Your task to perform on an android device: Open Yahoo.com Image 0: 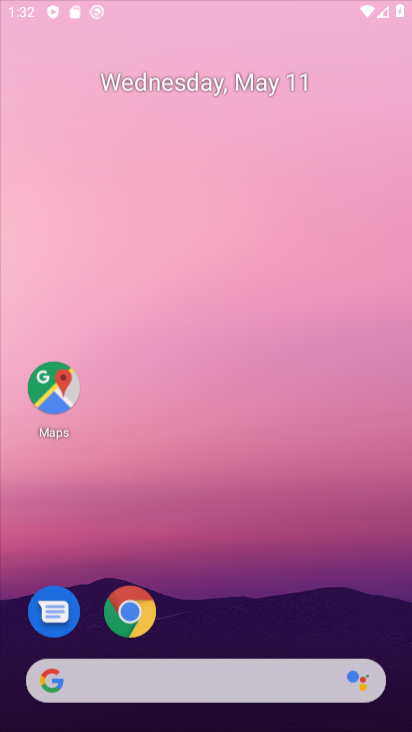
Step 0: click (395, 506)
Your task to perform on an android device: Open Yahoo.com Image 1: 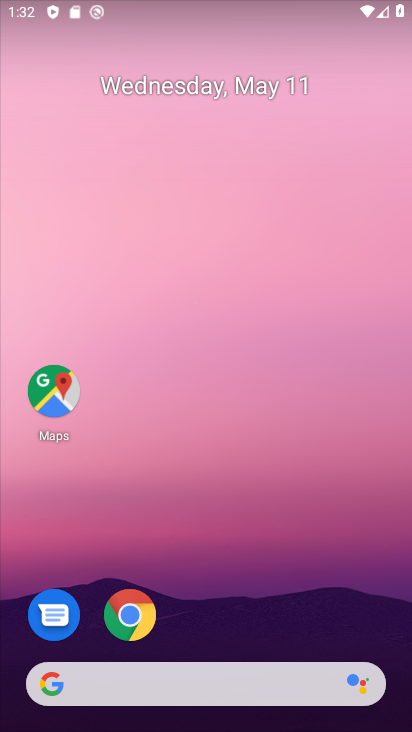
Step 1: drag from (250, 669) to (203, 235)
Your task to perform on an android device: Open Yahoo.com Image 2: 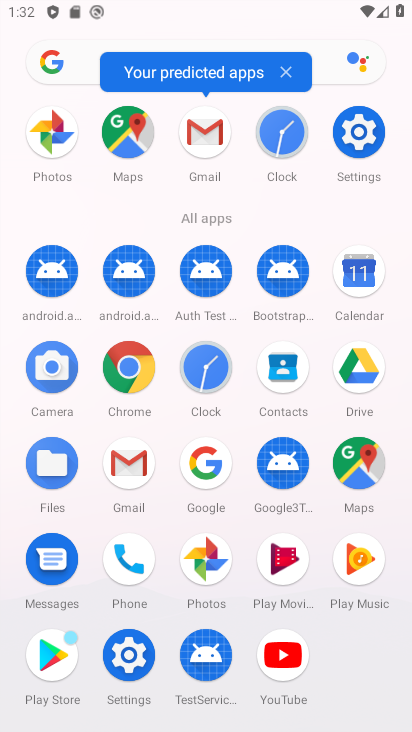
Step 2: click (120, 373)
Your task to perform on an android device: Open Yahoo.com Image 3: 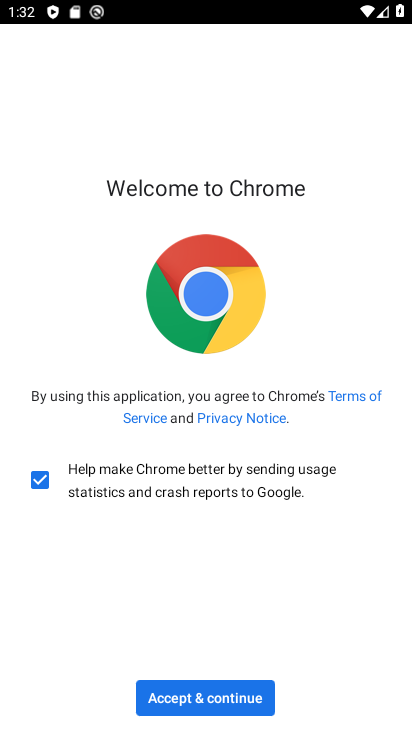
Step 3: click (221, 694)
Your task to perform on an android device: Open Yahoo.com Image 4: 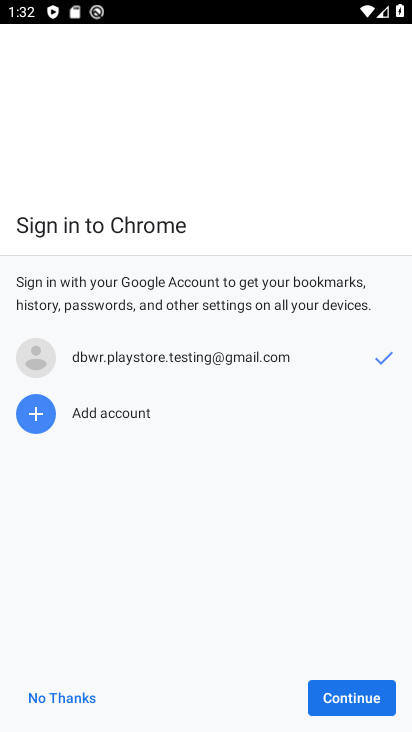
Step 4: click (320, 693)
Your task to perform on an android device: Open Yahoo.com Image 5: 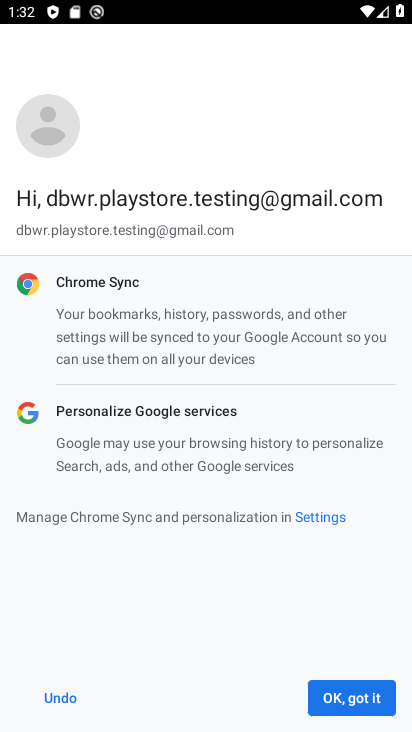
Step 5: click (320, 693)
Your task to perform on an android device: Open Yahoo.com Image 6: 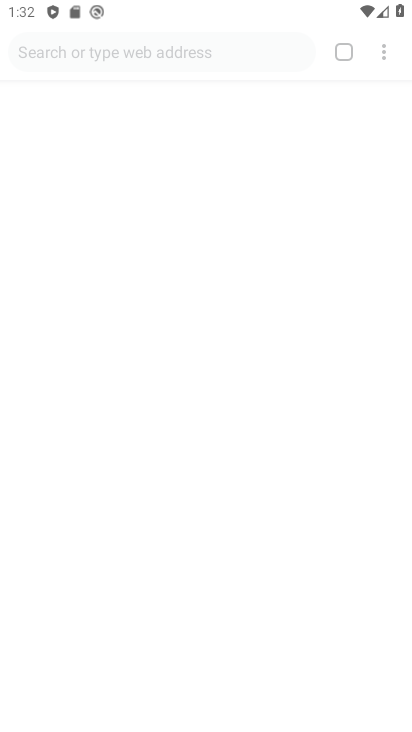
Step 6: click (320, 693)
Your task to perform on an android device: Open Yahoo.com Image 7: 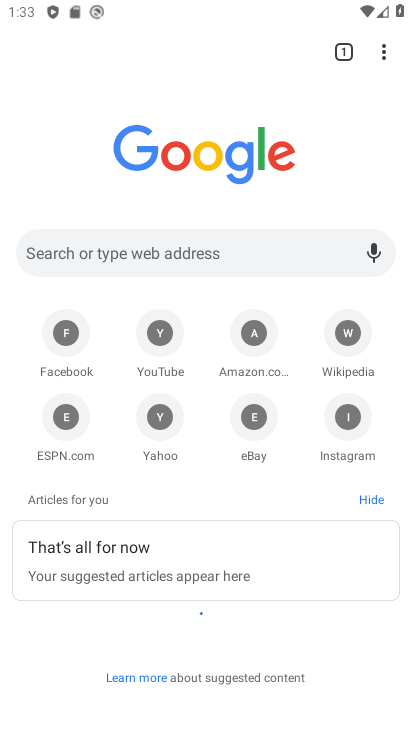
Step 7: click (162, 421)
Your task to perform on an android device: Open Yahoo.com Image 8: 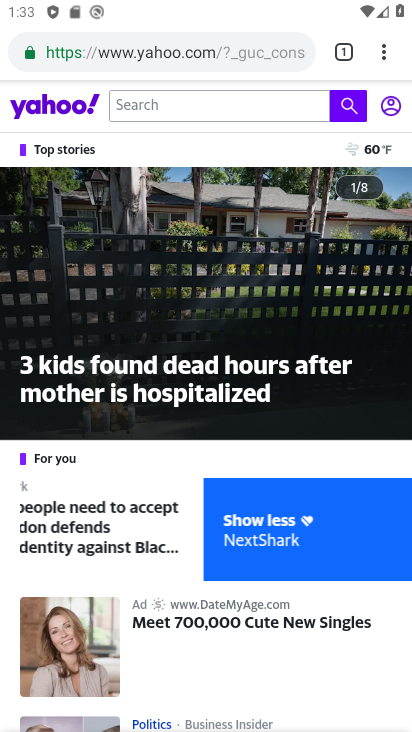
Step 8: task complete